Your task to perform on an android device: Go to settings Image 0: 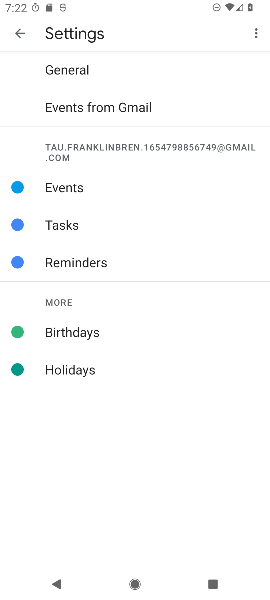
Step 0: press home button
Your task to perform on an android device: Go to settings Image 1: 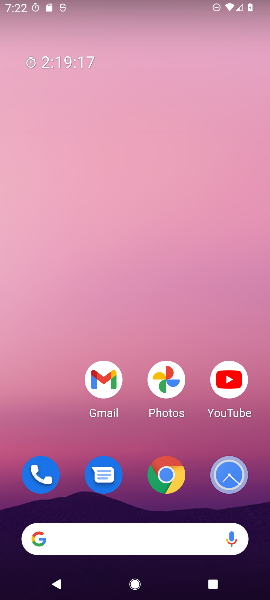
Step 1: drag from (56, 435) to (66, 270)
Your task to perform on an android device: Go to settings Image 2: 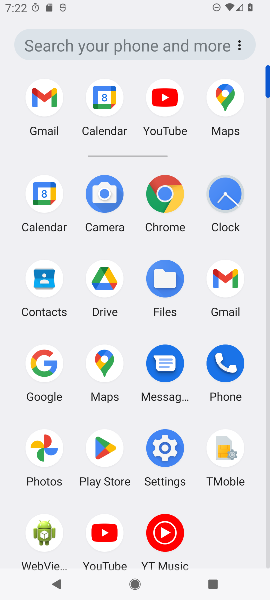
Step 2: click (163, 447)
Your task to perform on an android device: Go to settings Image 3: 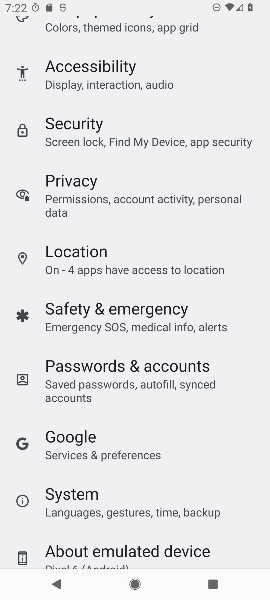
Step 3: task complete